Your task to perform on an android device: Open Chrome and go to settings Image 0: 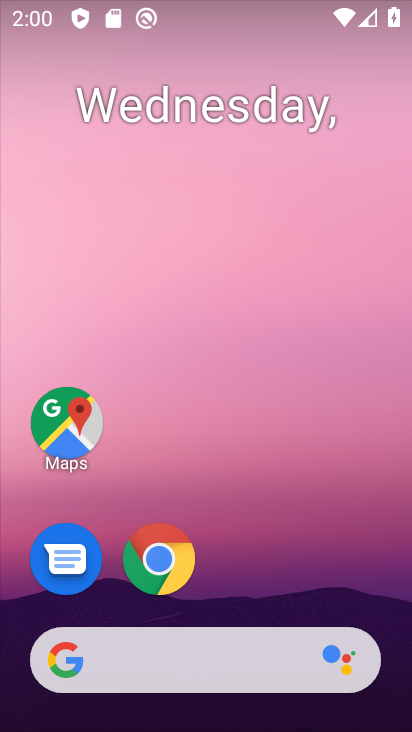
Step 0: click (147, 565)
Your task to perform on an android device: Open Chrome and go to settings Image 1: 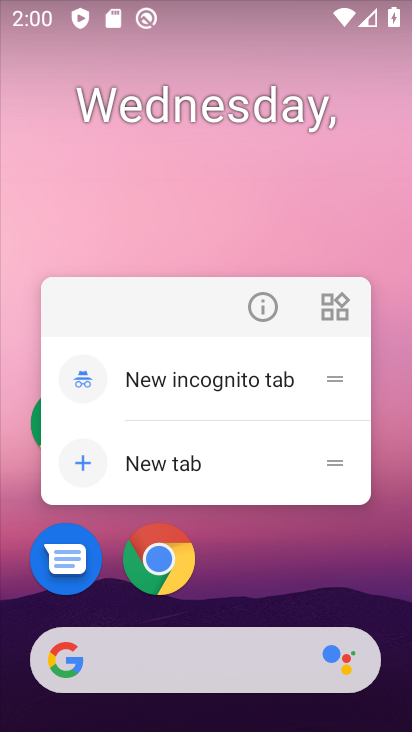
Step 1: click (166, 547)
Your task to perform on an android device: Open Chrome and go to settings Image 2: 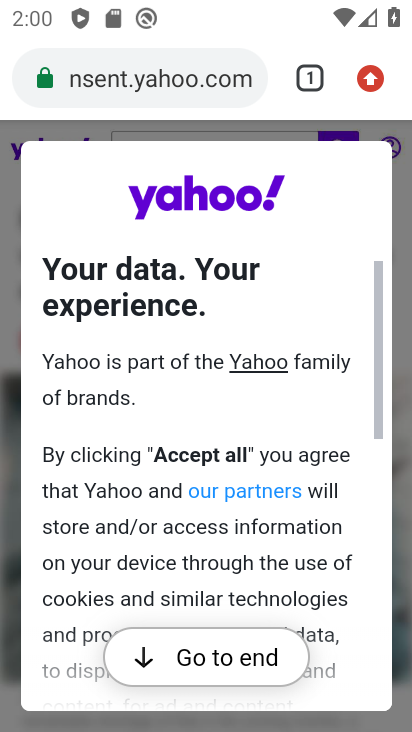
Step 2: task complete